Your task to perform on an android device: toggle wifi Image 0: 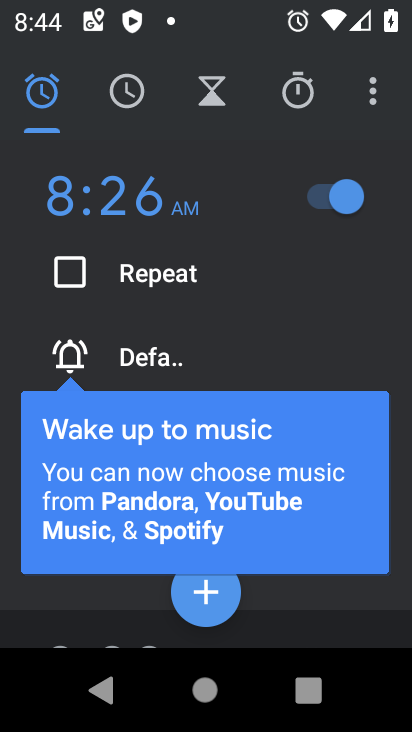
Step 0: press home button
Your task to perform on an android device: toggle wifi Image 1: 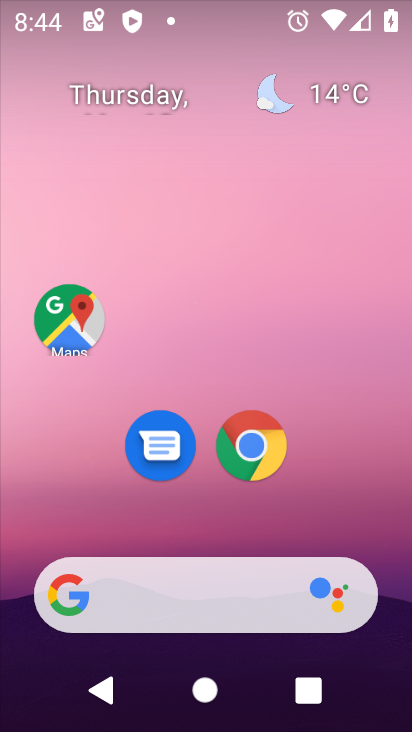
Step 1: drag from (227, 707) to (242, 144)
Your task to perform on an android device: toggle wifi Image 2: 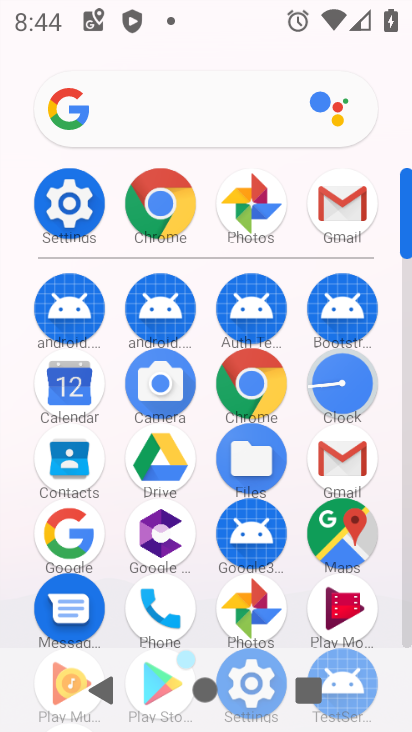
Step 2: click (76, 210)
Your task to perform on an android device: toggle wifi Image 3: 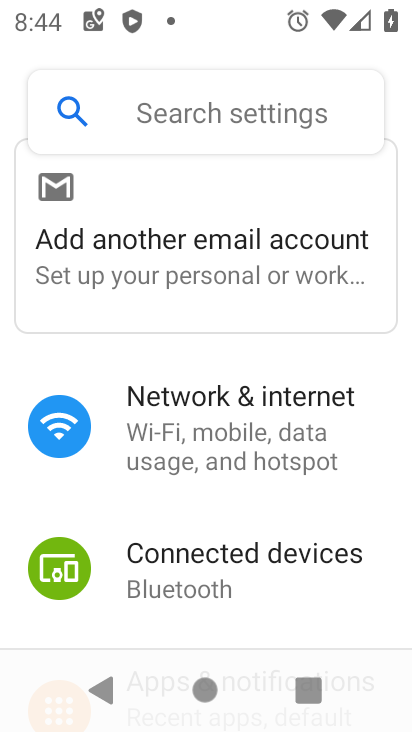
Step 3: click (244, 409)
Your task to perform on an android device: toggle wifi Image 4: 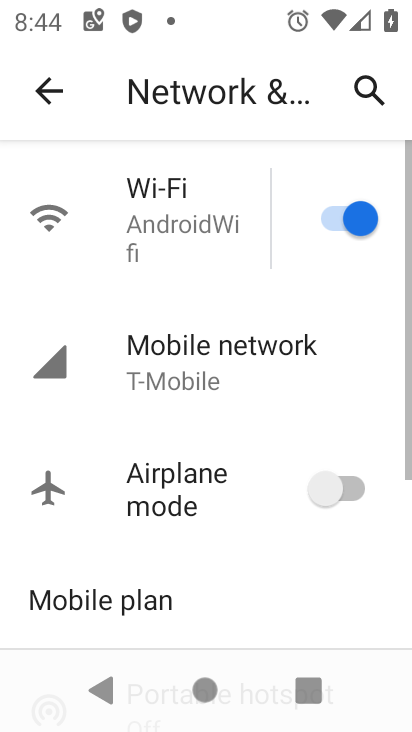
Step 4: click (327, 216)
Your task to perform on an android device: toggle wifi Image 5: 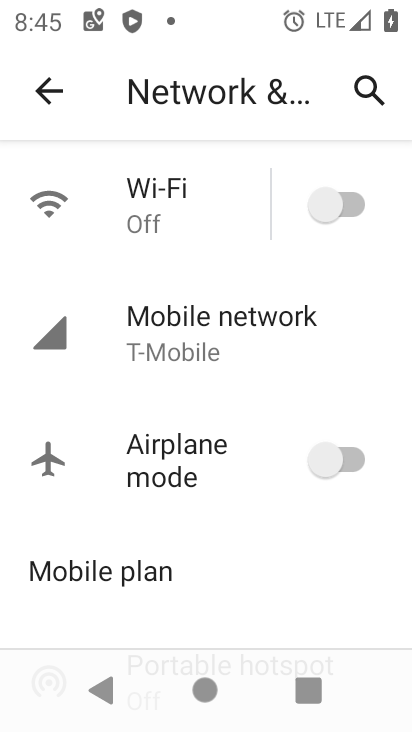
Step 5: task complete